Your task to perform on an android device: Show me the alarms in the clock app Image 0: 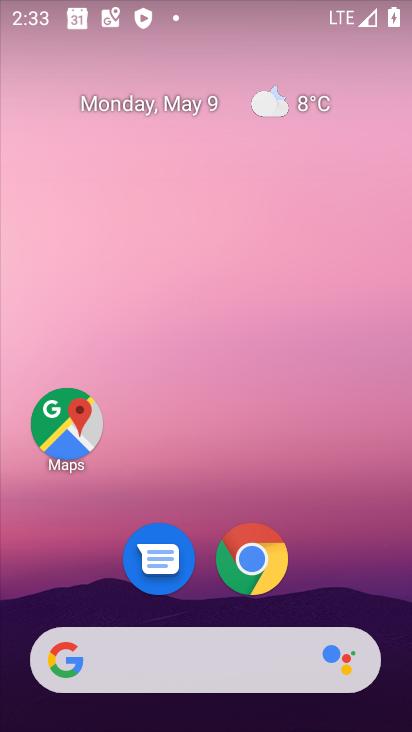
Step 0: drag from (252, 50) to (307, 11)
Your task to perform on an android device: Show me the alarms in the clock app Image 1: 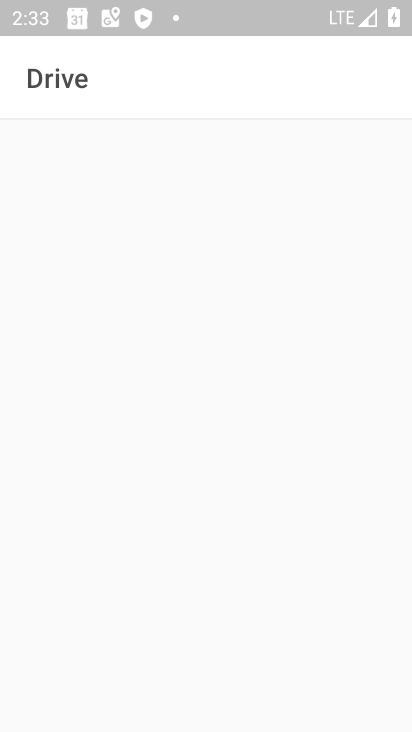
Step 1: press home button
Your task to perform on an android device: Show me the alarms in the clock app Image 2: 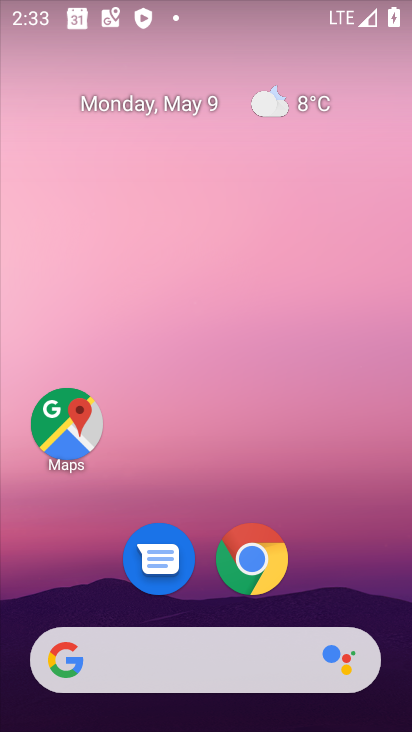
Step 2: drag from (324, 572) to (259, 33)
Your task to perform on an android device: Show me the alarms in the clock app Image 3: 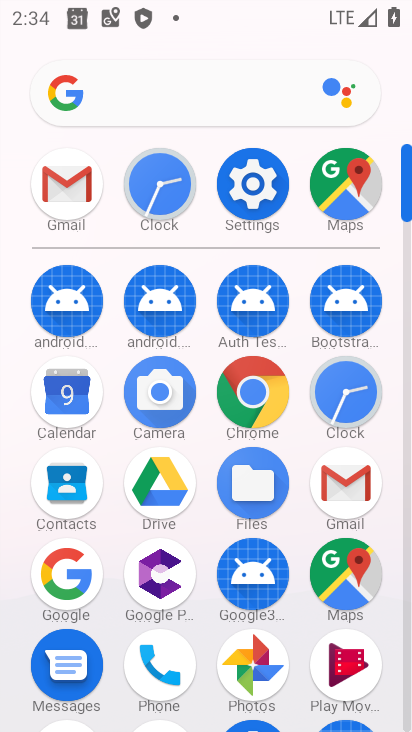
Step 3: click (343, 382)
Your task to perform on an android device: Show me the alarms in the clock app Image 4: 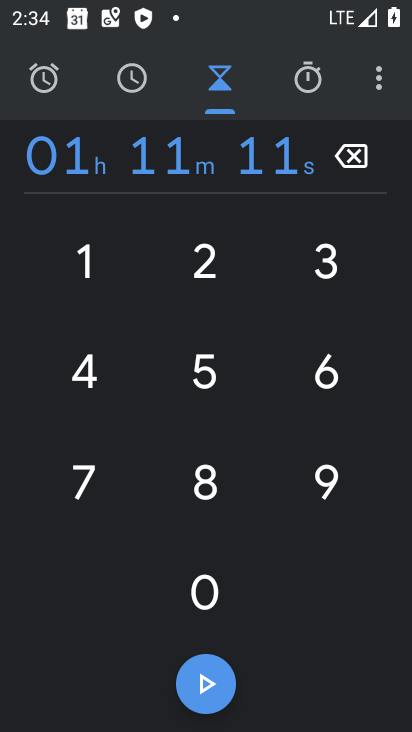
Step 4: click (41, 82)
Your task to perform on an android device: Show me the alarms in the clock app Image 5: 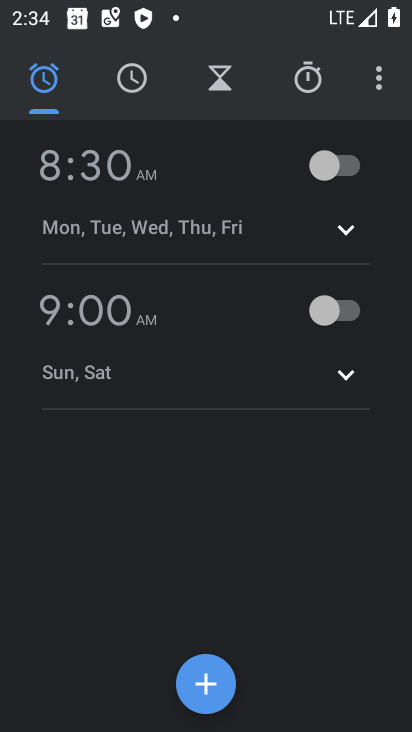
Step 5: task complete